Your task to perform on an android device: turn off improve location accuracy Image 0: 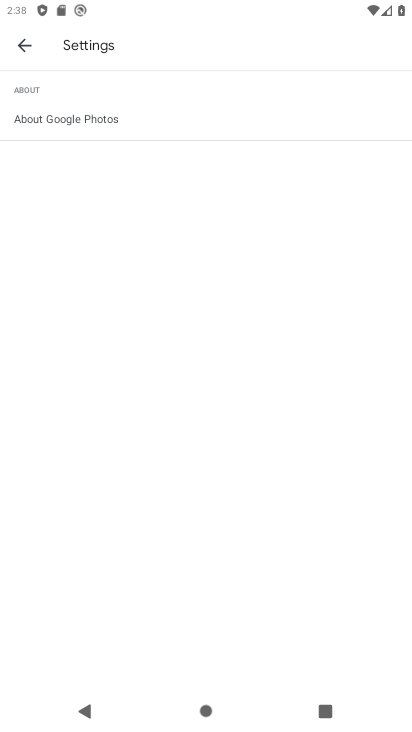
Step 0: press home button
Your task to perform on an android device: turn off improve location accuracy Image 1: 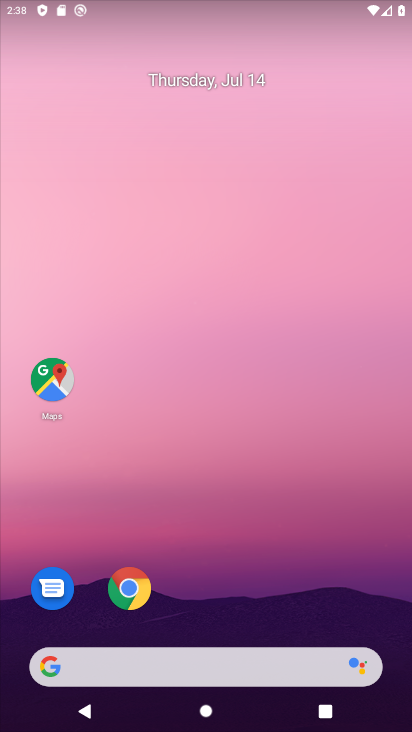
Step 1: drag from (209, 623) to (203, 93)
Your task to perform on an android device: turn off improve location accuracy Image 2: 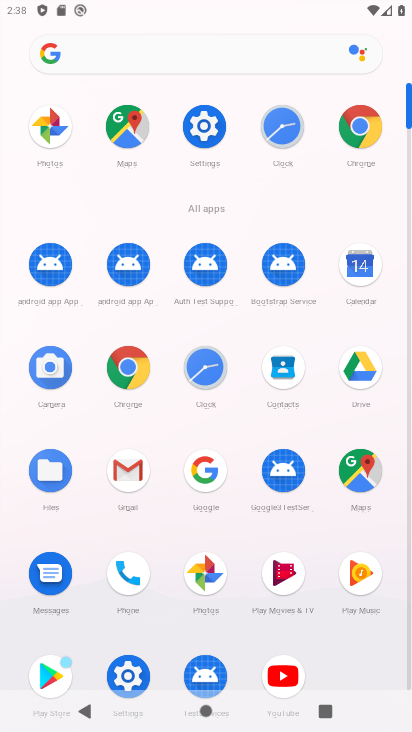
Step 2: click (214, 145)
Your task to perform on an android device: turn off improve location accuracy Image 3: 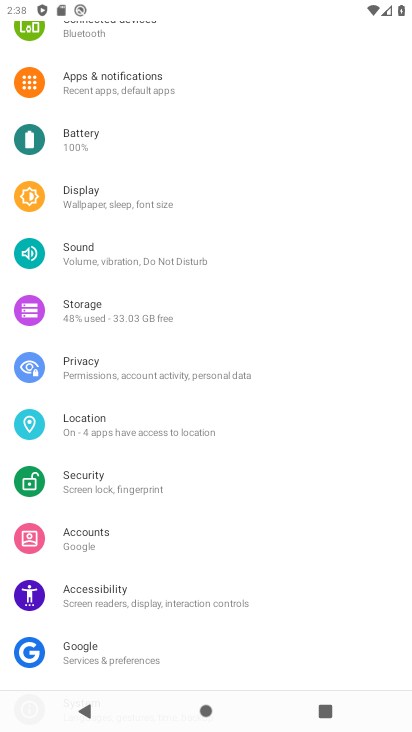
Step 3: click (96, 420)
Your task to perform on an android device: turn off improve location accuracy Image 4: 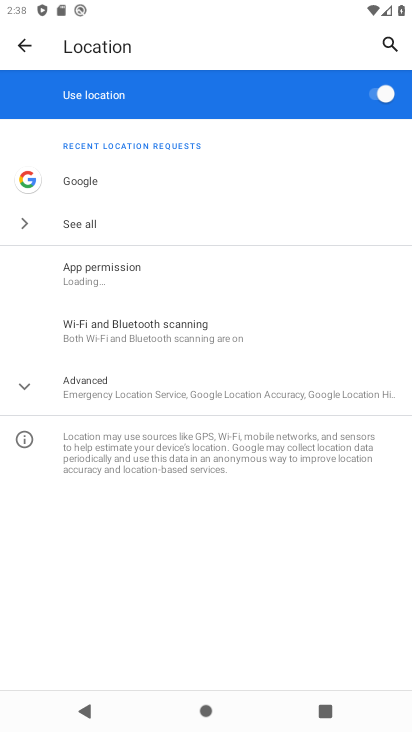
Step 4: click (104, 399)
Your task to perform on an android device: turn off improve location accuracy Image 5: 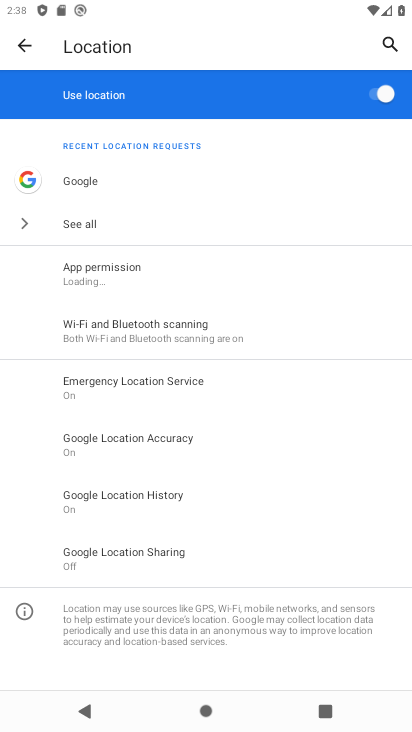
Step 5: click (146, 445)
Your task to perform on an android device: turn off improve location accuracy Image 6: 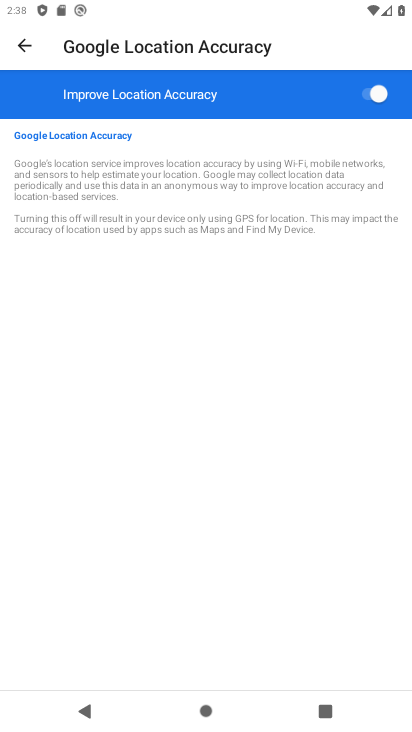
Step 6: click (365, 93)
Your task to perform on an android device: turn off improve location accuracy Image 7: 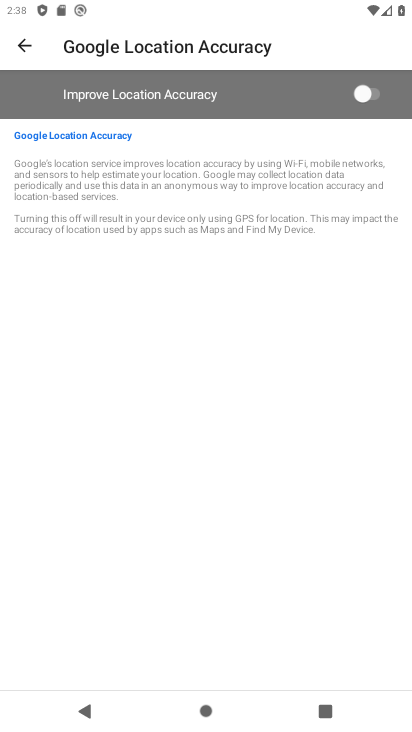
Step 7: task complete